Your task to perform on an android device: change the upload size in google photos Image 0: 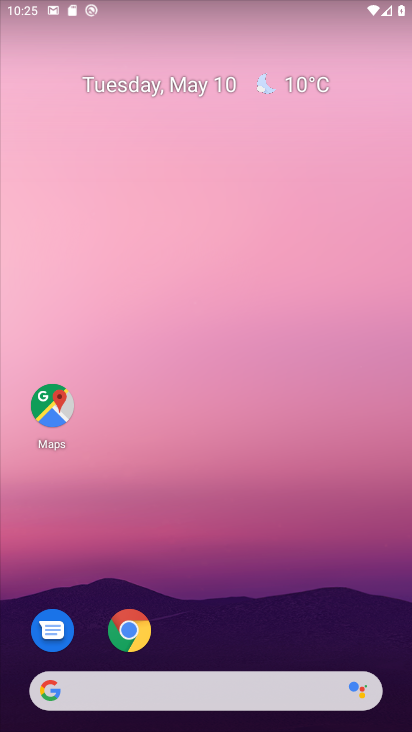
Step 0: drag from (249, 599) to (221, 189)
Your task to perform on an android device: change the upload size in google photos Image 1: 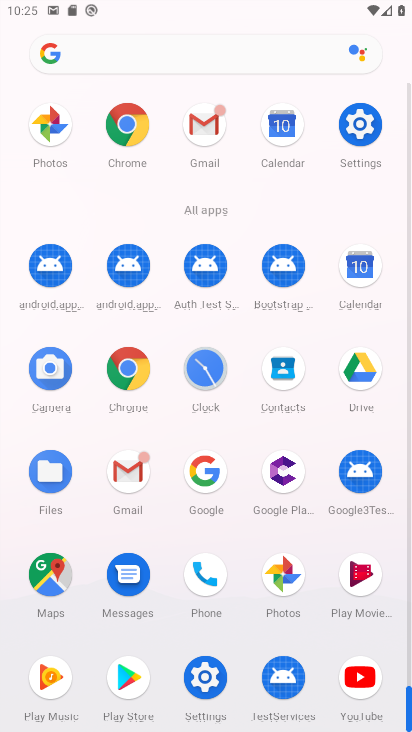
Step 1: click (286, 573)
Your task to perform on an android device: change the upload size in google photos Image 2: 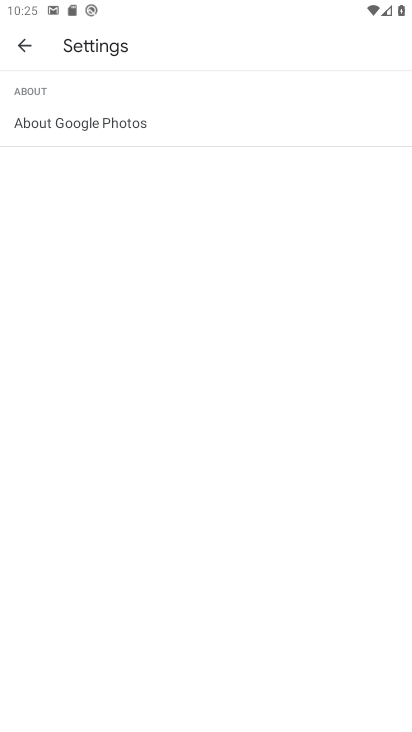
Step 2: click (24, 42)
Your task to perform on an android device: change the upload size in google photos Image 3: 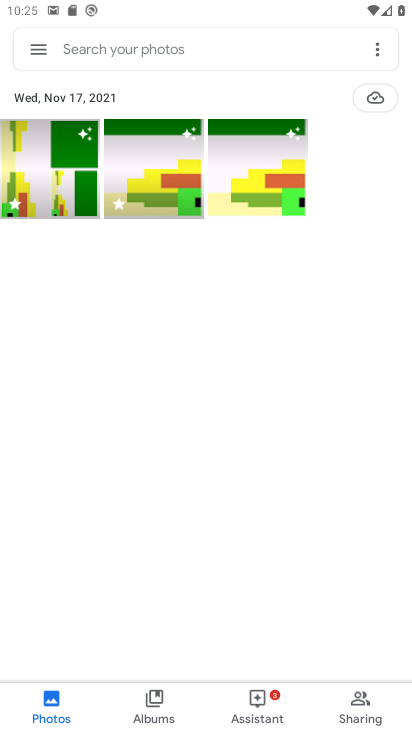
Step 3: click (41, 53)
Your task to perform on an android device: change the upload size in google photos Image 4: 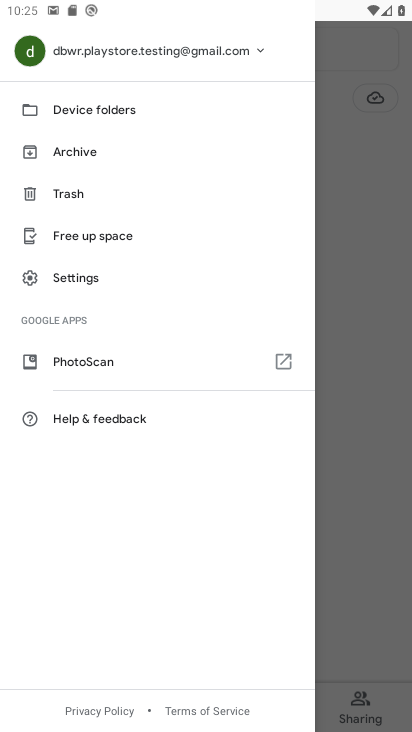
Step 4: click (108, 279)
Your task to perform on an android device: change the upload size in google photos Image 5: 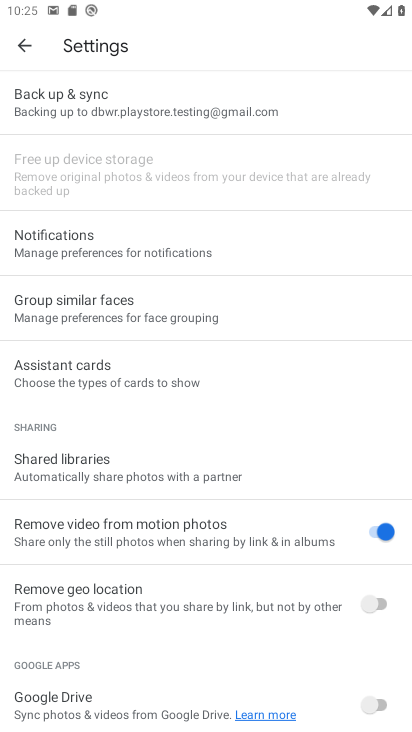
Step 5: click (155, 97)
Your task to perform on an android device: change the upload size in google photos Image 6: 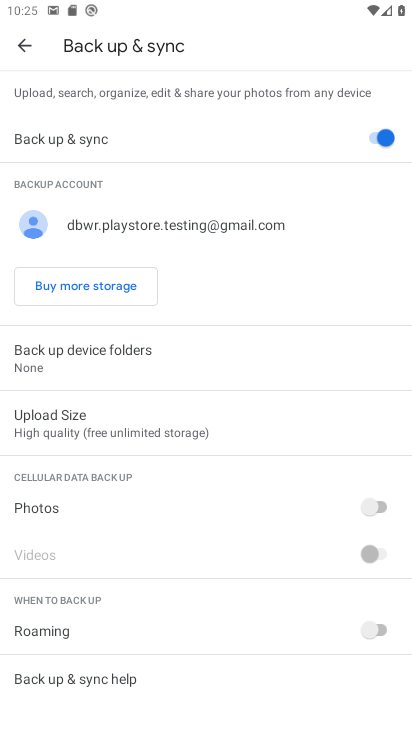
Step 6: click (162, 425)
Your task to perform on an android device: change the upload size in google photos Image 7: 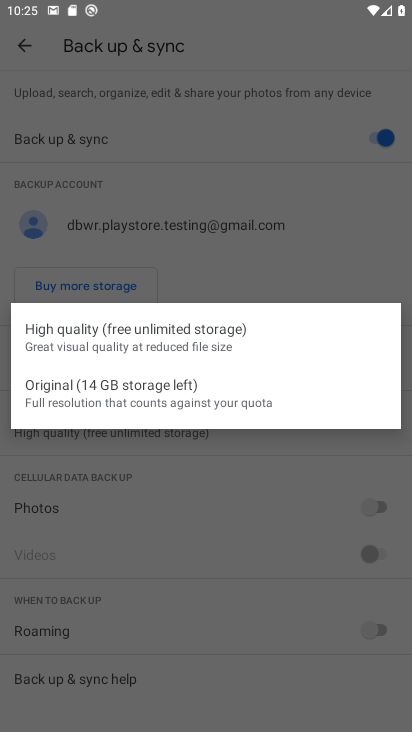
Step 7: click (167, 390)
Your task to perform on an android device: change the upload size in google photos Image 8: 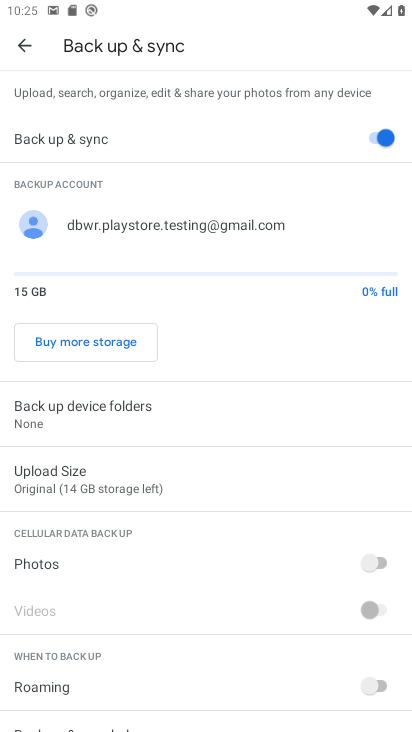
Step 8: task complete